Your task to perform on an android device: refresh tabs in the chrome app Image 0: 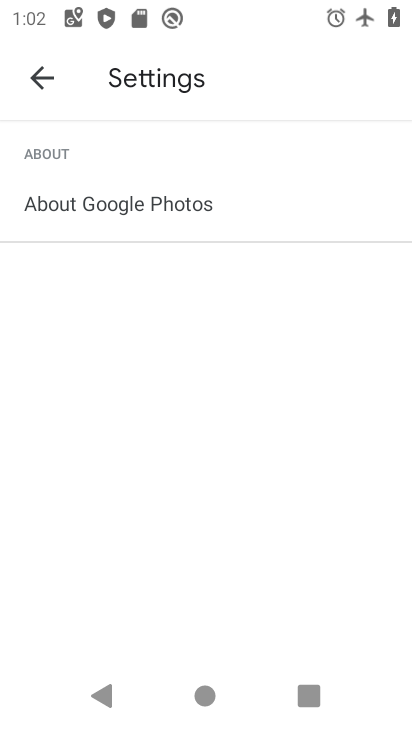
Step 0: press home button
Your task to perform on an android device: refresh tabs in the chrome app Image 1: 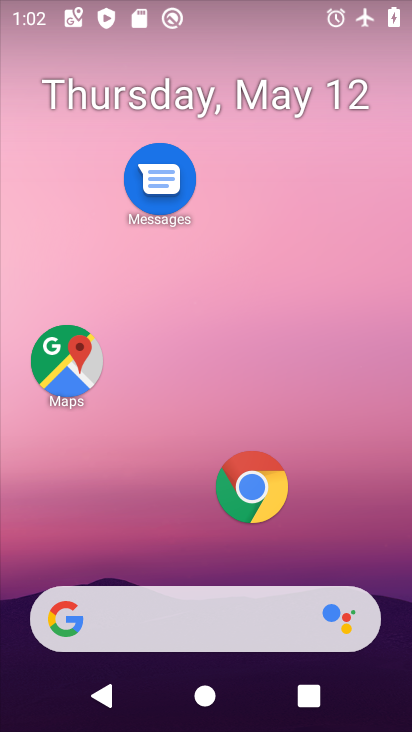
Step 1: click (231, 481)
Your task to perform on an android device: refresh tabs in the chrome app Image 2: 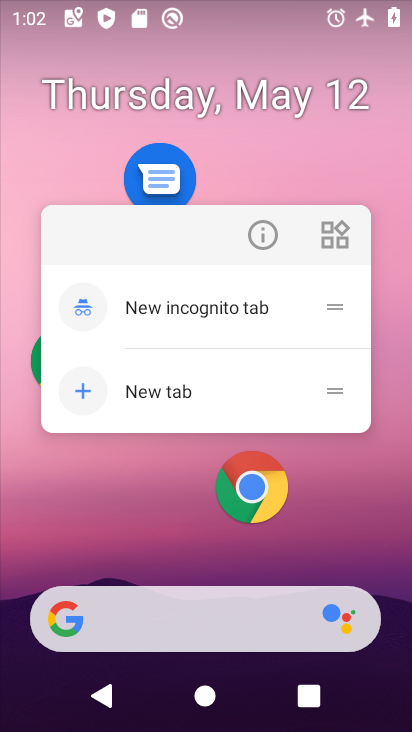
Step 2: click (231, 481)
Your task to perform on an android device: refresh tabs in the chrome app Image 3: 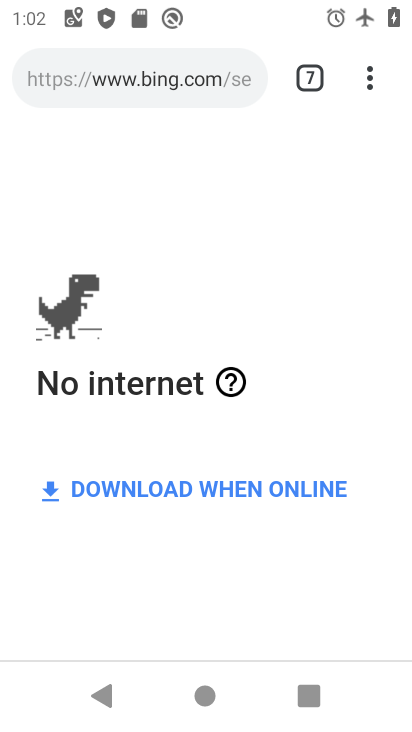
Step 3: click (369, 71)
Your task to perform on an android device: refresh tabs in the chrome app Image 4: 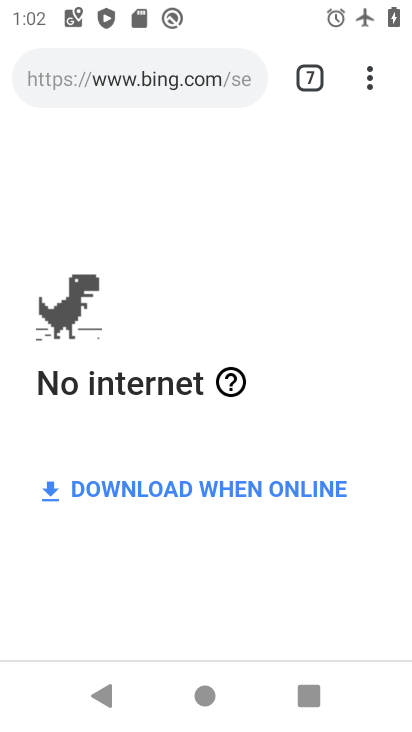
Step 4: click (369, 71)
Your task to perform on an android device: refresh tabs in the chrome app Image 5: 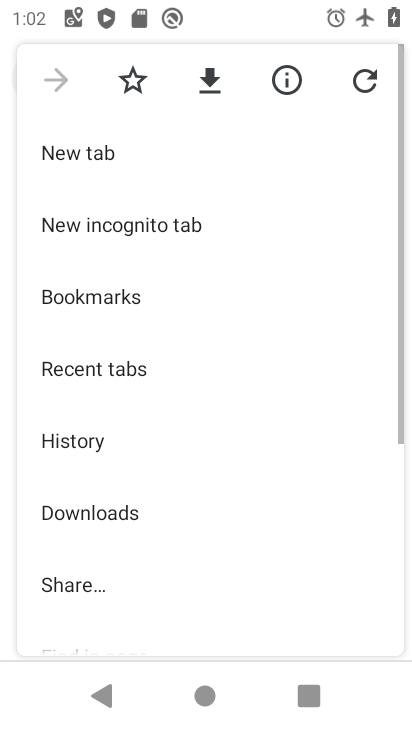
Step 5: click (369, 71)
Your task to perform on an android device: refresh tabs in the chrome app Image 6: 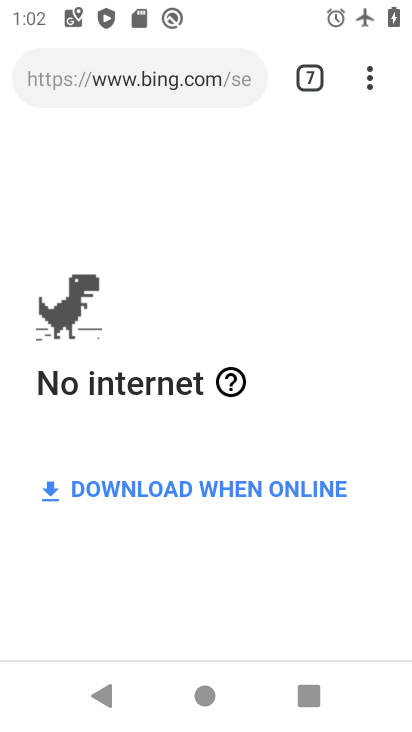
Step 6: task complete